Your task to perform on an android device: Search for sushi restaurants on Maps Image 0: 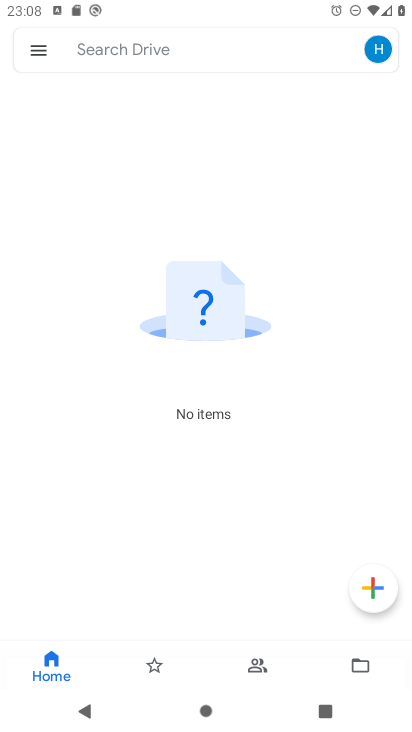
Step 0: press home button
Your task to perform on an android device: Search for sushi restaurants on Maps Image 1: 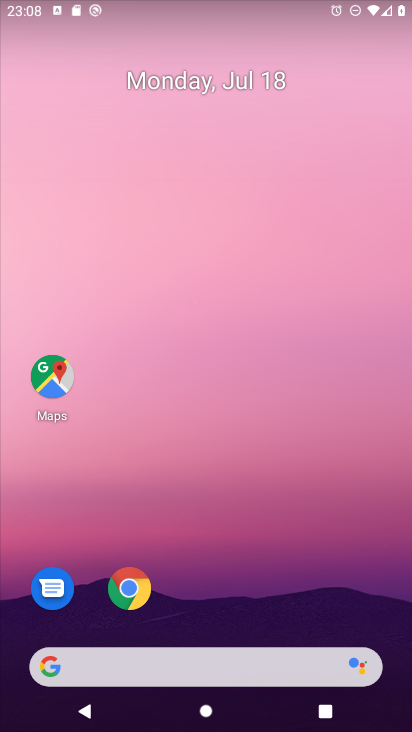
Step 1: click (56, 374)
Your task to perform on an android device: Search for sushi restaurants on Maps Image 2: 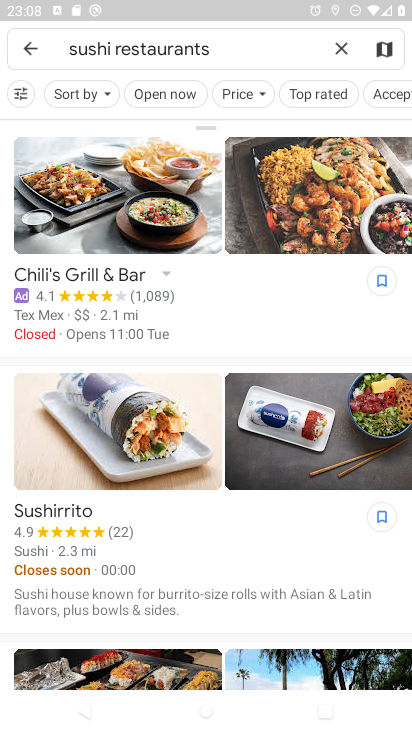
Step 2: drag from (222, 251) to (215, 606)
Your task to perform on an android device: Search for sushi restaurants on Maps Image 3: 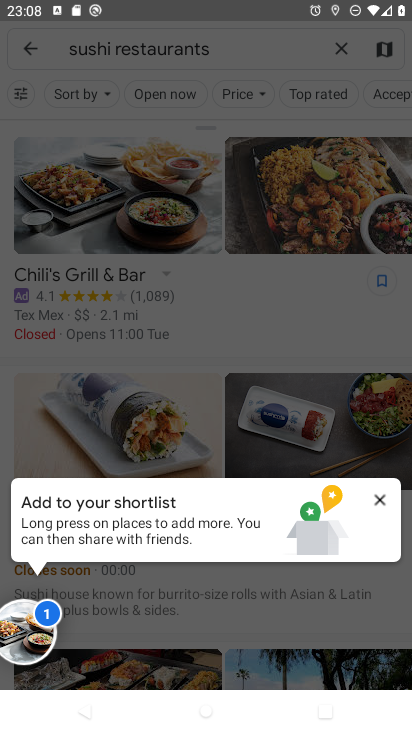
Step 3: click (380, 496)
Your task to perform on an android device: Search for sushi restaurants on Maps Image 4: 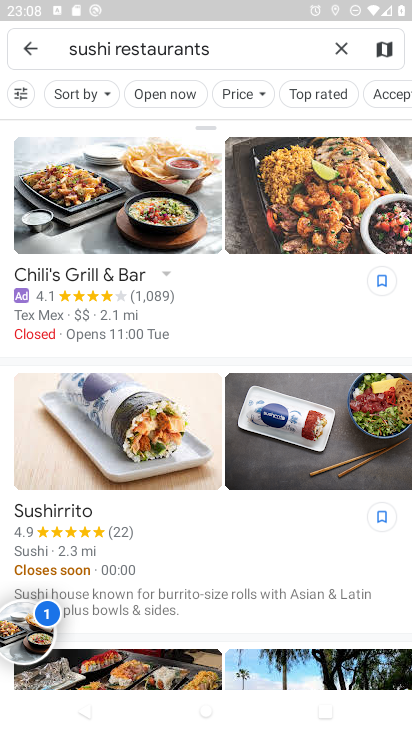
Step 4: task complete